Your task to perform on an android device: turn notification dots on Image 0: 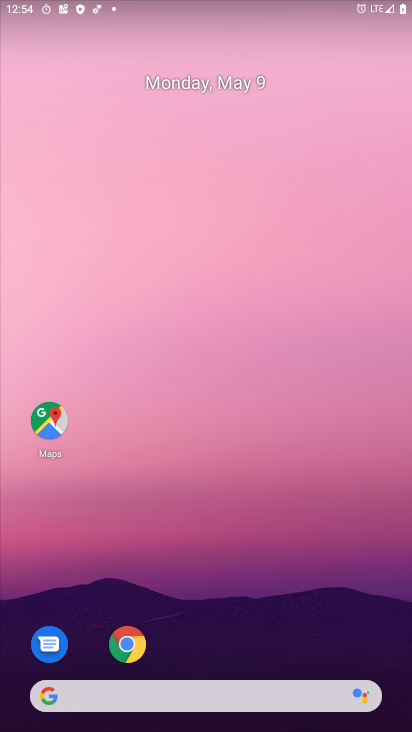
Step 0: drag from (302, 601) to (143, 41)
Your task to perform on an android device: turn notification dots on Image 1: 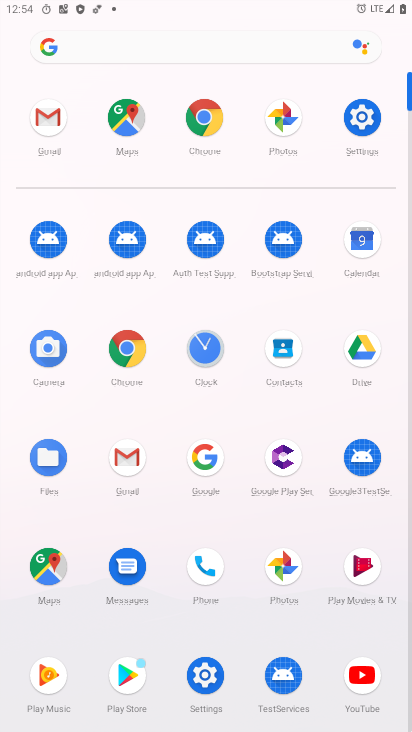
Step 1: click (359, 117)
Your task to perform on an android device: turn notification dots on Image 2: 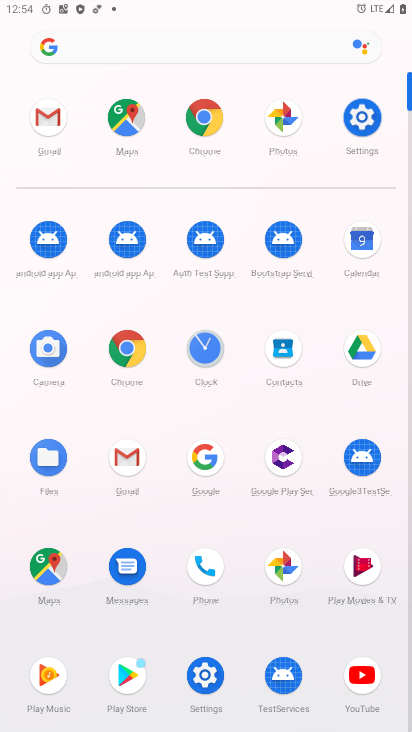
Step 2: click (359, 117)
Your task to perform on an android device: turn notification dots on Image 3: 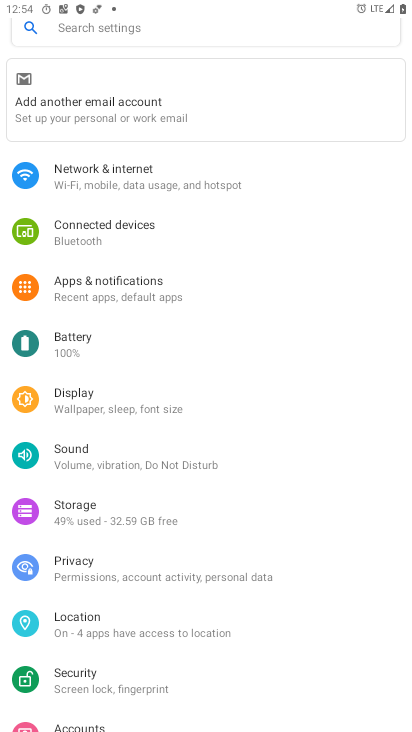
Step 3: click (131, 282)
Your task to perform on an android device: turn notification dots on Image 4: 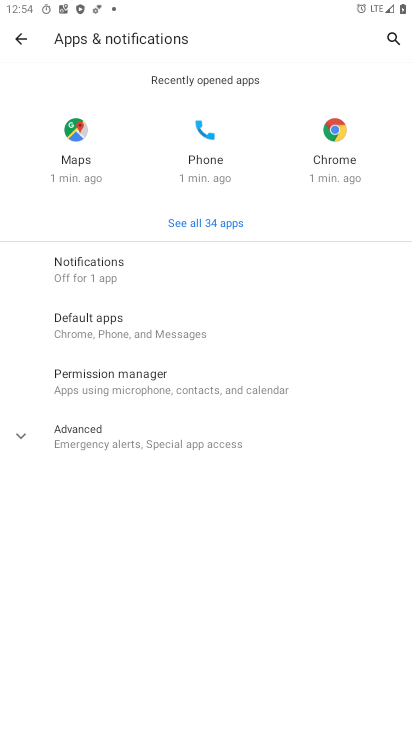
Step 4: click (99, 262)
Your task to perform on an android device: turn notification dots on Image 5: 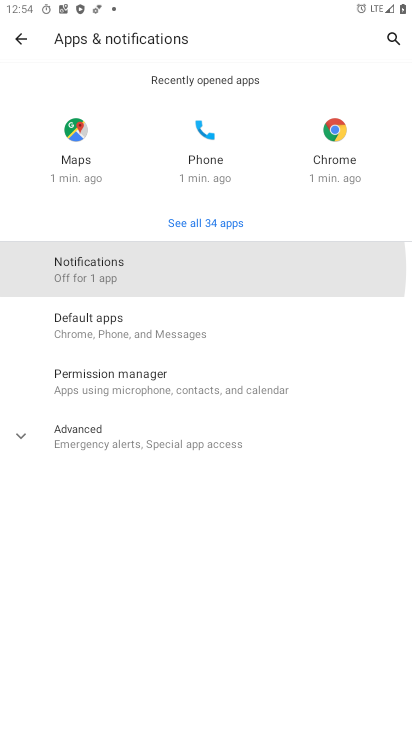
Step 5: click (92, 257)
Your task to perform on an android device: turn notification dots on Image 6: 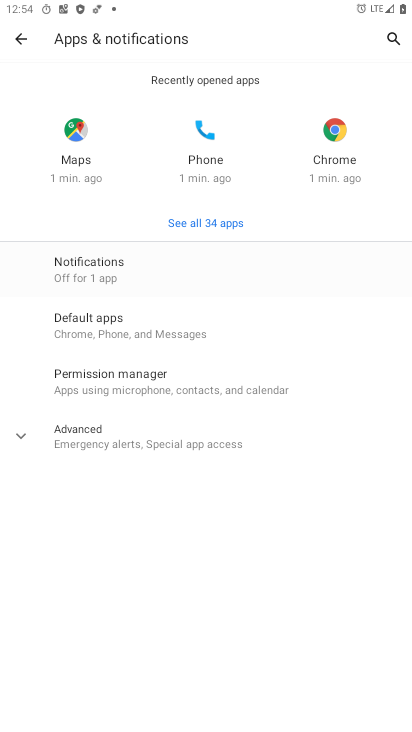
Step 6: click (92, 257)
Your task to perform on an android device: turn notification dots on Image 7: 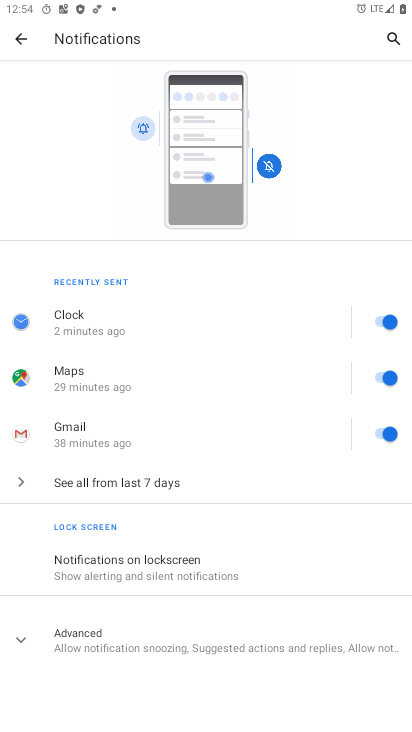
Step 7: drag from (210, 521) to (247, 175)
Your task to perform on an android device: turn notification dots on Image 8: 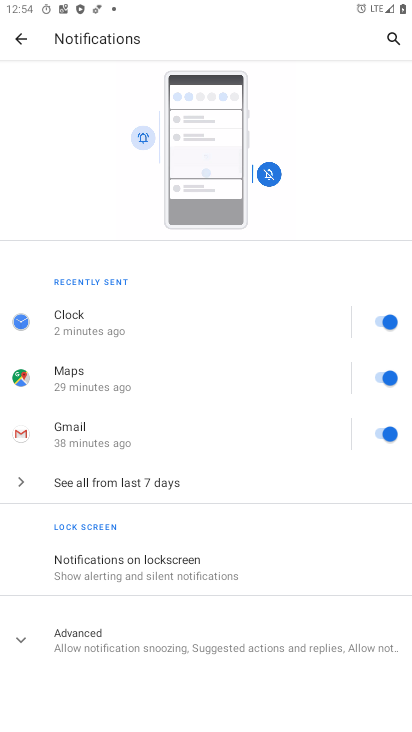
Step 8: click (89, 629)
Your task to perform on an android device: turn notification dots on Image 9: 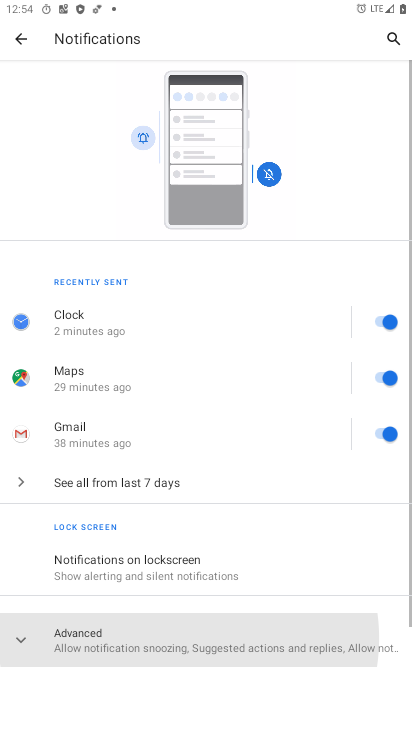
Step 9: click (88, 633)
Your task to perform on an android device: turn notification dots on Image 10: 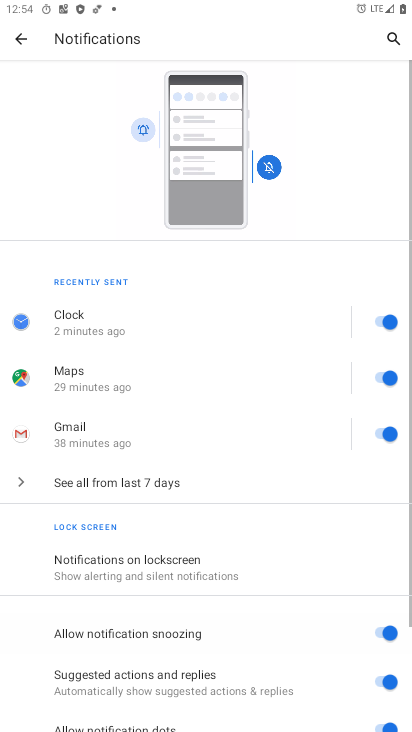
Step 10: click (101, 627)
Your task to perform on an android device: turn notification dots on Image 11: 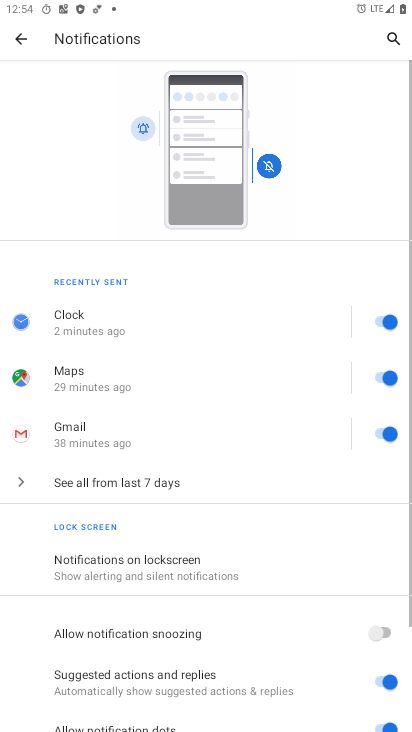
Step 11: task complete